Your task to perform on an android device: Open the stopwatch Image 0: 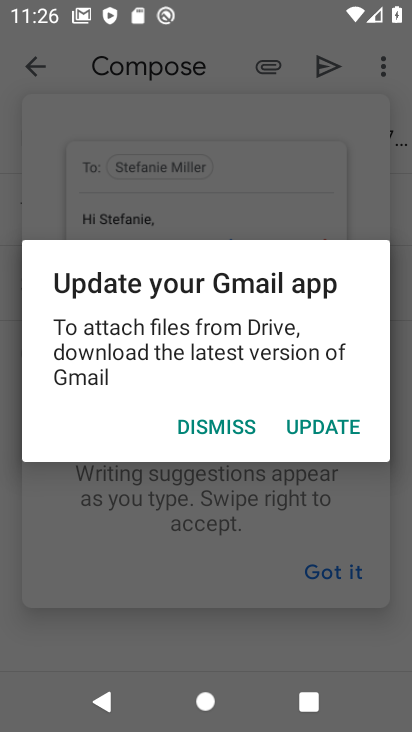
Step 0: press home button
Your task to perform on an android device: Open the stopwatch Image 1: 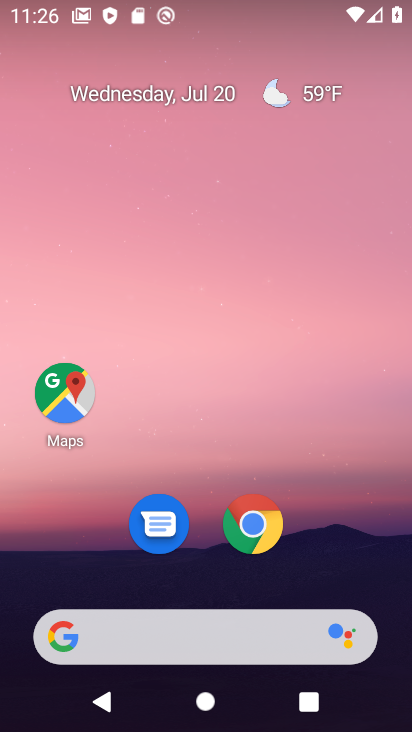
Step 1: drag from (228, 631) to (318, 151)
Your task to perform on an android device: Open the stopwatch Image 2: 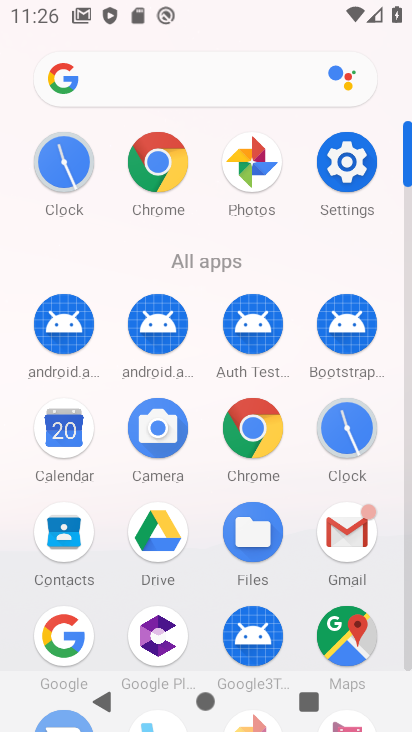
Step 2: click (340, 428)
Your task to perform on an android device: Open the stopwatch Image 3: 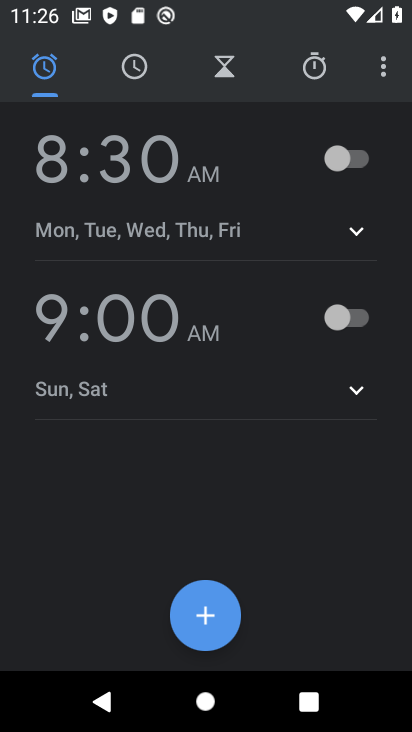
Step 3: click (315, 67)
Your task to perform on an android device: Open the stopwatch Image 4: 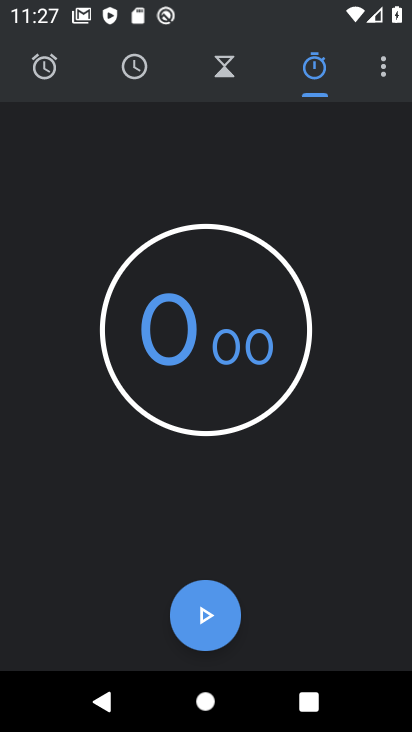
Step 4: task complete